Your task to perform on an android device: all mails in gmail Image 0: 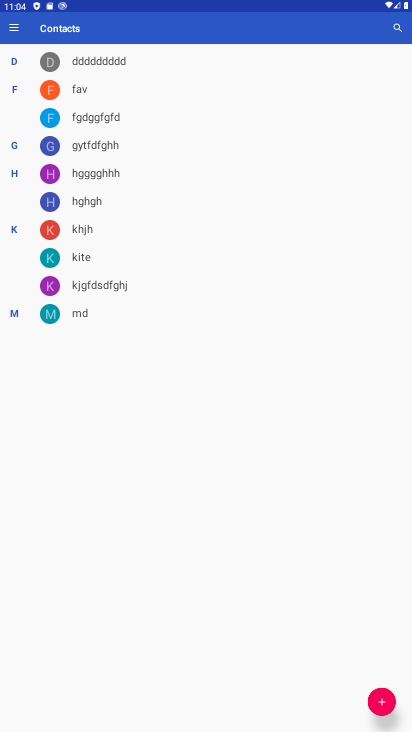
Step 0: press home button
Your task to perform on an android device: all mails in gmail Image 1: 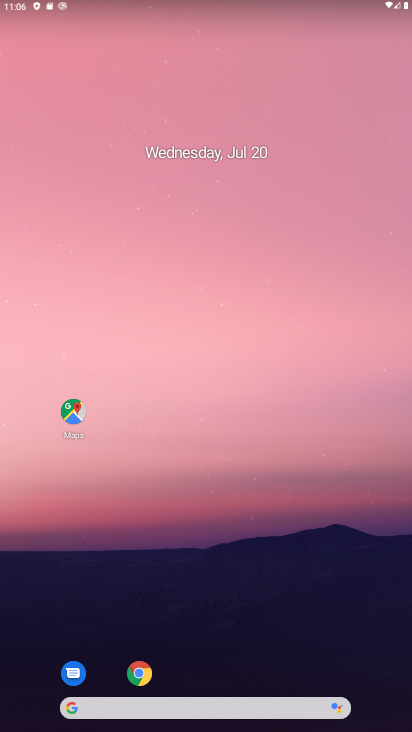
Step 1: drag from (278, 671) to (351, 45)
Your task to perform on an android device: all mails in gmail Image 2: 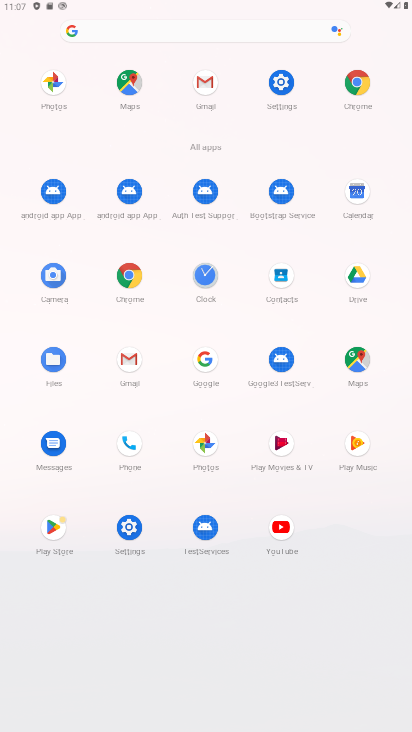
Step 2: click (205, 96)
Your task to perform on an android device: all mails in gmail Image 3: 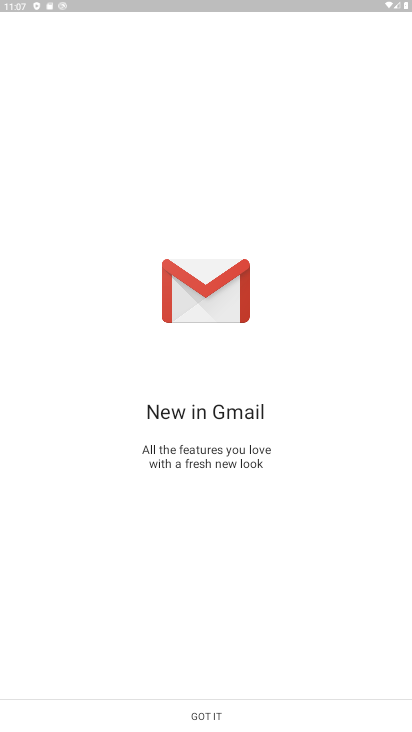
Step 3: click (215, 708)
Your task to perform on an android device: all mails in gmail Image 4: 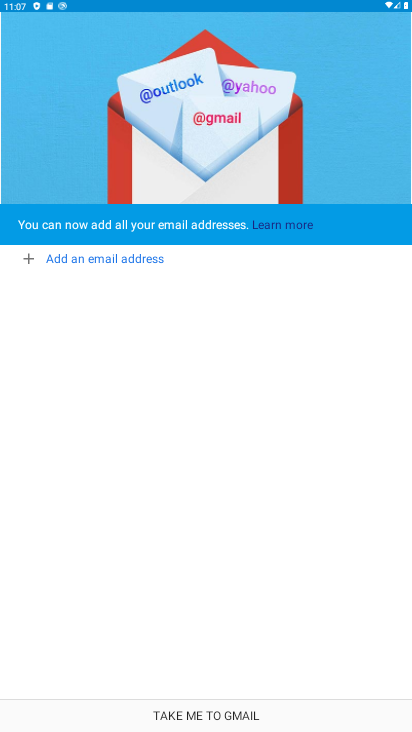
Step 4: click (215, 708)
Your task to perform on an android device: all mails in gmail Image 5: 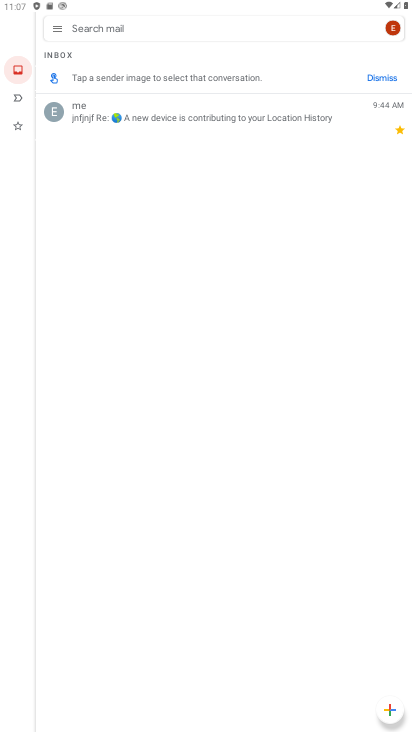
Step 5: click (61, 32)
Your task to perform on an android device: all mails in gmail Image 6: 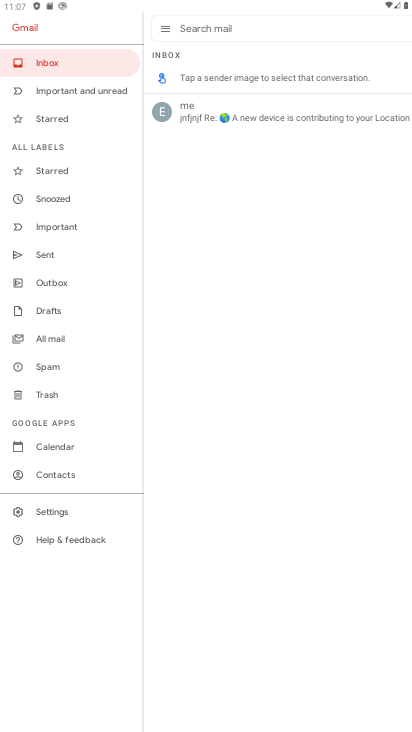
Step 6: click (57, 338)
Your task to perform on an android device: all mails in gmail Image 7: 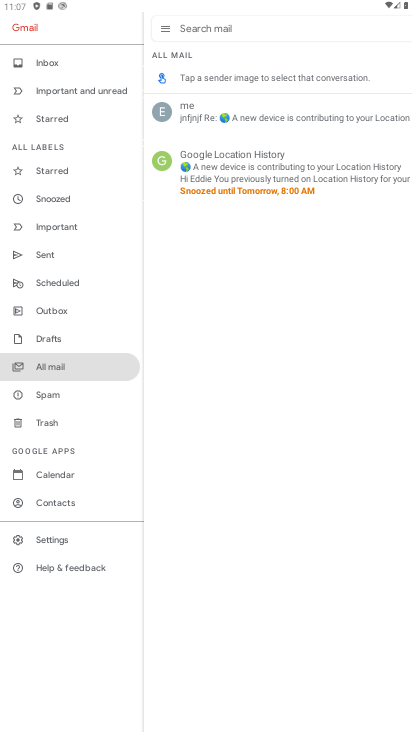
Step 7: task complete